Your task to perform on an android device: change notification settings in the gmail app Image 0: 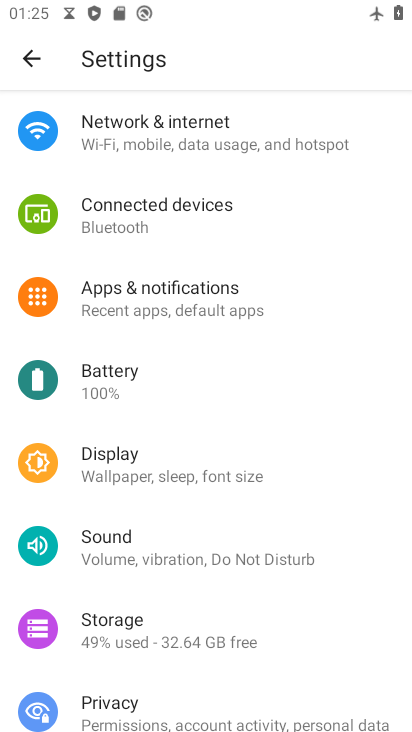
Step 0: press home button
Your task to perform on an android device: change notification settings in the gmail app Image 1: 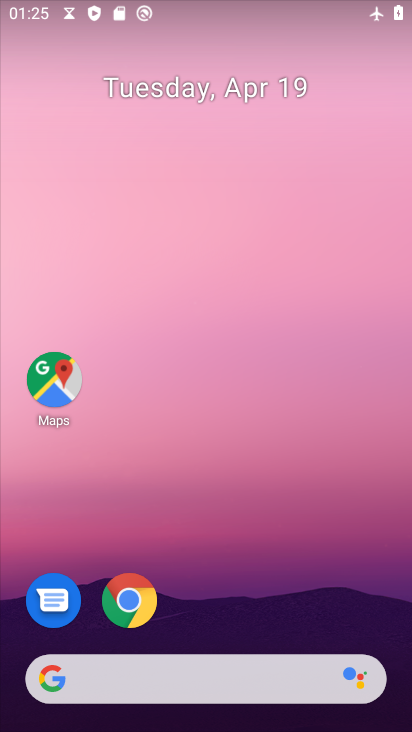
Step 1: drag from (226, 638) to (163, 32)
Your task to perform on an android device: change notification settings in the gmail app Image 2: 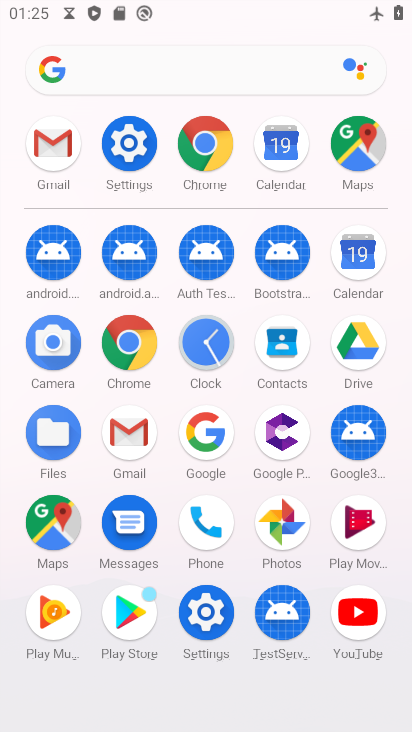
Step 2: click (124, 453)
Your task to perform on an android device: change notification settings in the gmail app Image 3: 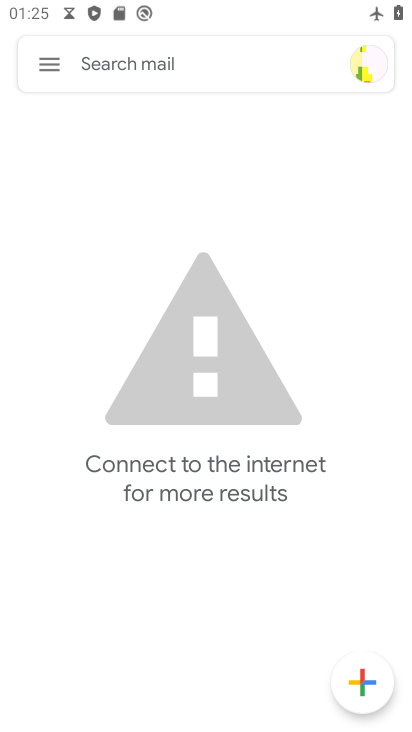
Step 3: click (63, 68)
Your task to perform on an android device: change notification settings in the gmail app Image 4: 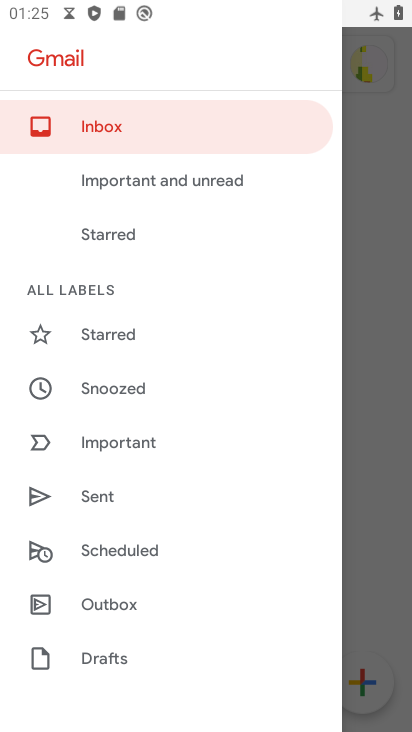
Step 4: drag from (141, 609) to (103, 267)
Your task to perform on an android device: change notification settings in the gmail app Image 5: 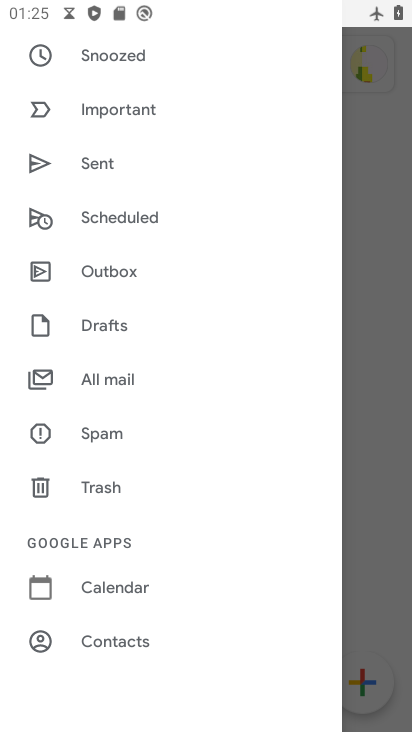
Step 5: drag from (116, 649) to (113, 276)
Your task to perform on an android device: change notification settings in the gmail app Image 6: 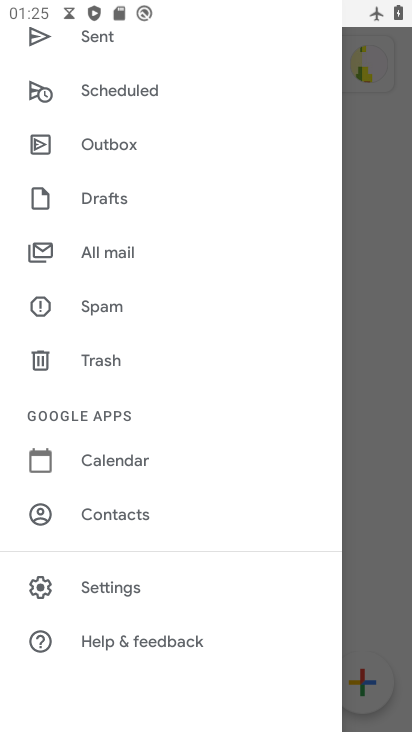
Step 6: click (119, 588)
Your task to perform on an android device: change notification settings in the gmail app Image 7: 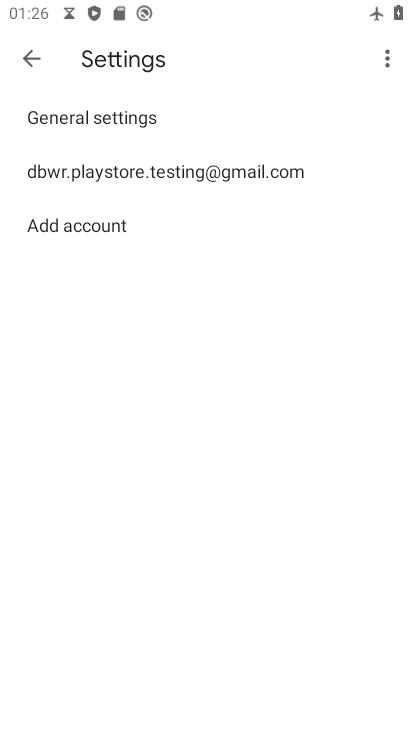
Step 7: click (95, 114)
Your task to perform on an android device: change notification settings in the gmail app Image 8: 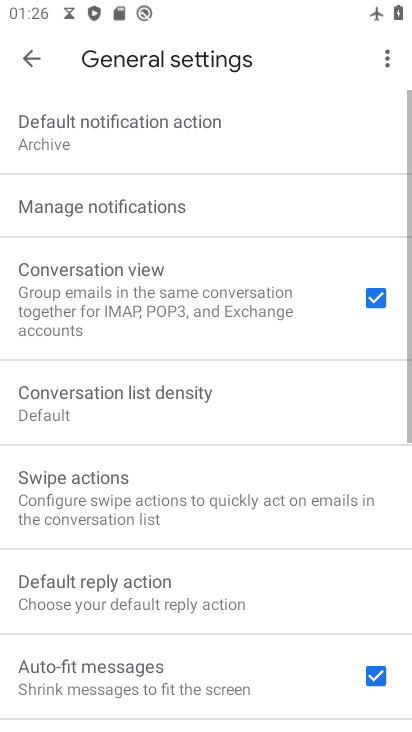
Step 8: click (84, 188)
Your task to perform on an android device: change notification settings in the gmail app Image 9: 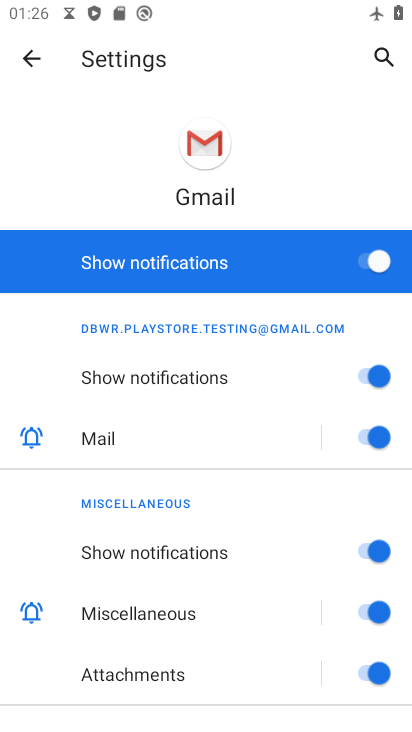
Step 9: click (368, 266)
Your task to perform on an android device: change notification settings in the gmail app Image 10: 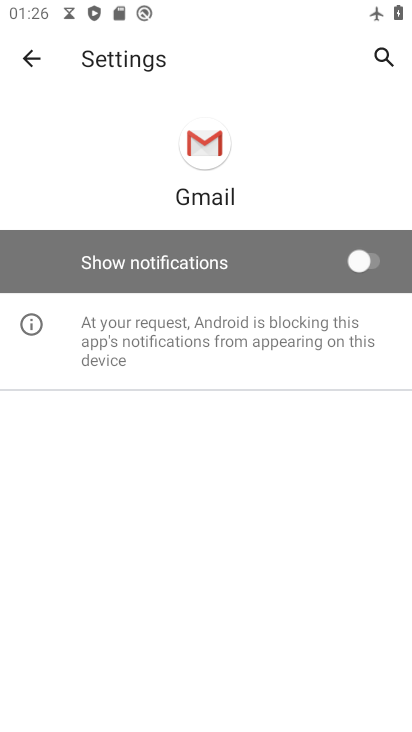
Step 10: task complete